Your task to perform on an android device: Open the stopwatch Image 0: 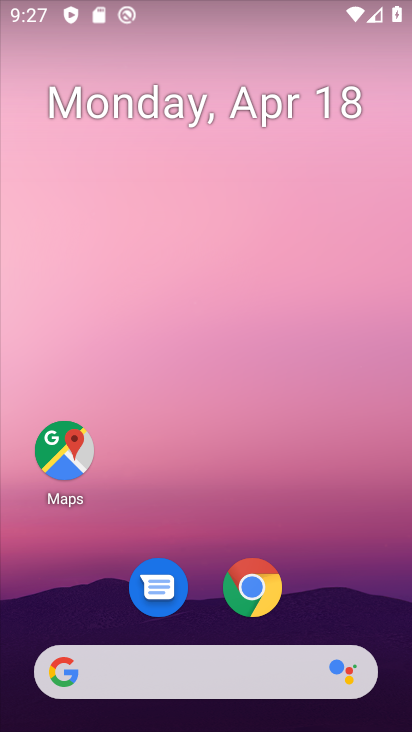
Step 0: drag from (215, 721) to (211, 100)
Your task to perform on an android device: Open the stopwatch Image 1: 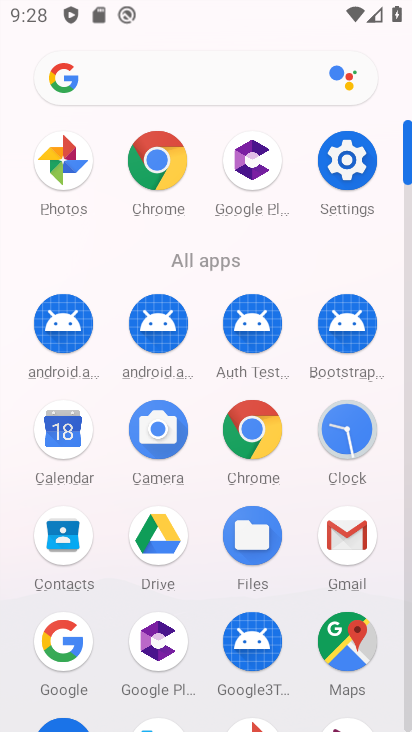
Step 1: click (346, 431)
Your task to perform on an android device: Open the stopwatch Image 2: 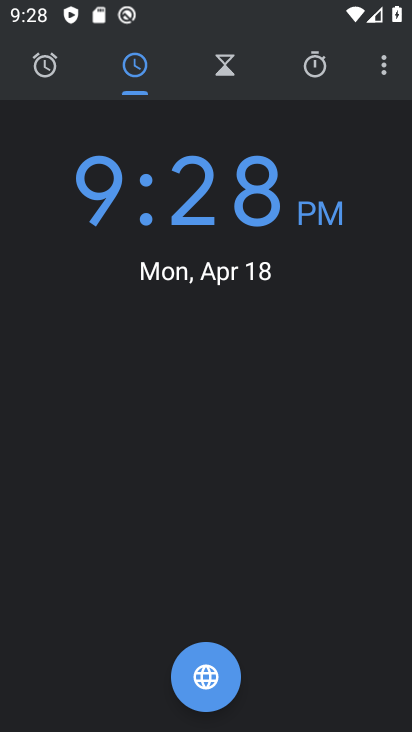
Step 2: click (313, 63)
Your task to perform on an android device: Open the stopwatch Image 3: 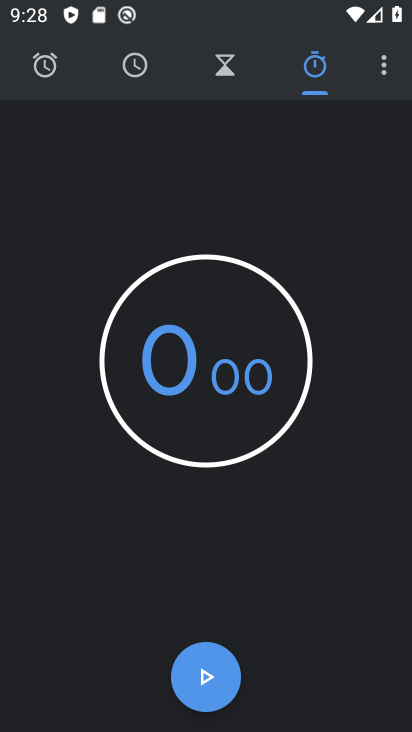
Step 3: task complete